Your task to perform on an android device: Turn off the flashlight Image 0: 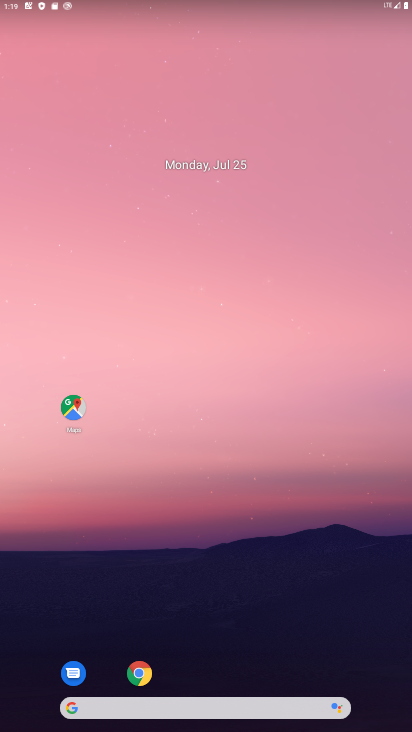
Step 0: drag from (222, 15) to (233, 211)
Your task to perform on an android device: Turn off the flashlight Image 1: 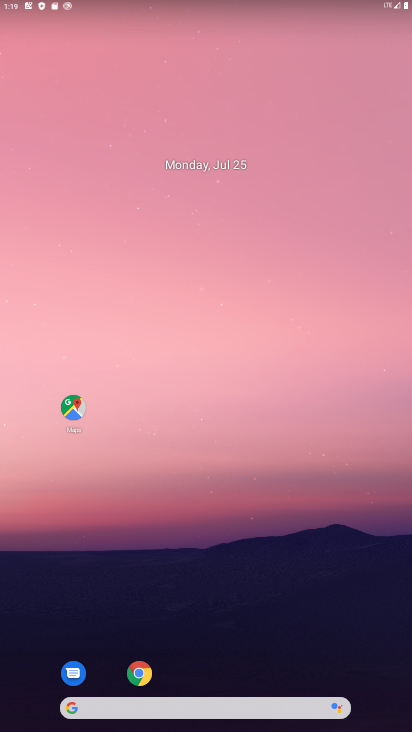
Step 1: drag from (232, 19) to (229, 248)
Your task to perform on an android device: Turn off the flashlight Image 2: 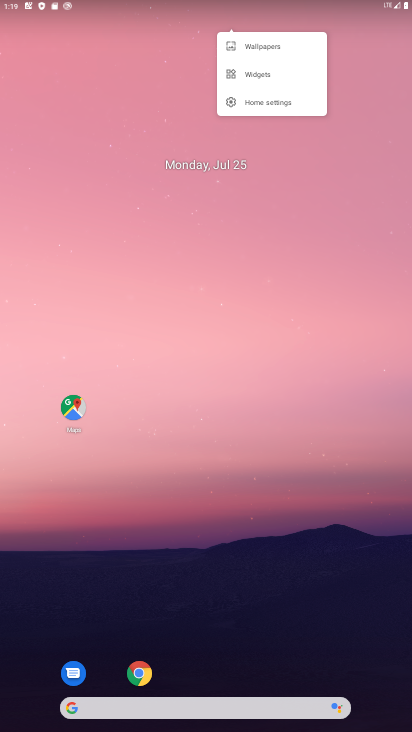
Step 2: drag from (212, 6) to (202, 255)
Your task to perform on an android device: Turn off the flashlight Image 3: 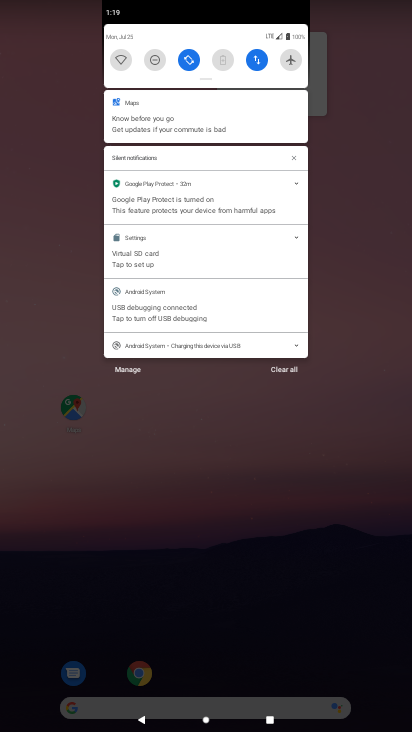
Step 3: drag from (209, 77) to (197, 379)
Your task to perform on an android device: Turn off the flashlight Image 4: 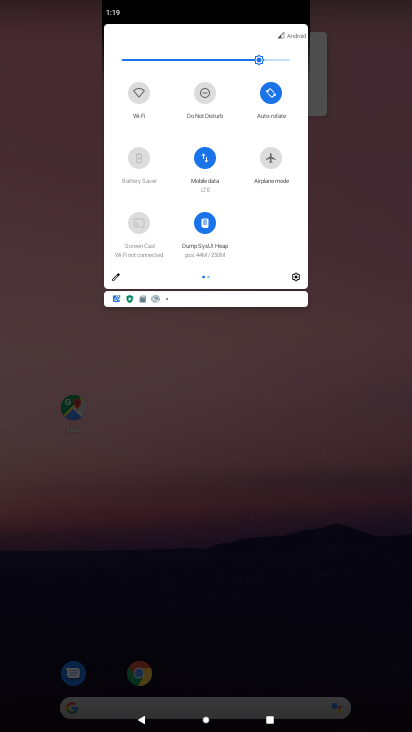
Step 4: click (111, 271)
Your task to perform on an android device: Turn off the flashlight Image 5: 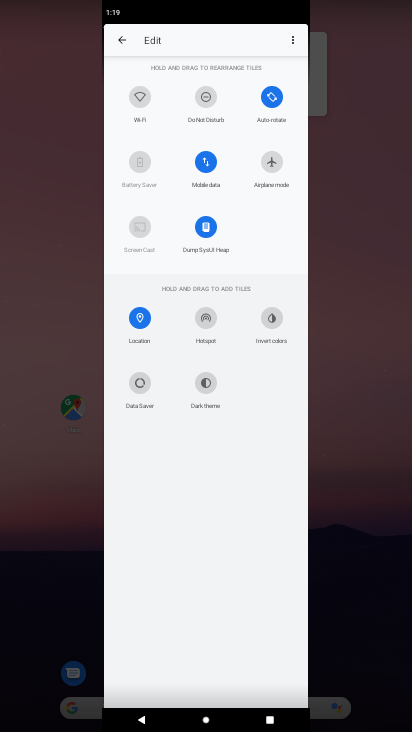
Step 5: task complete